Your task to perform on an android device: Open the Play Movies app and select the watchlist tab. Image 0: 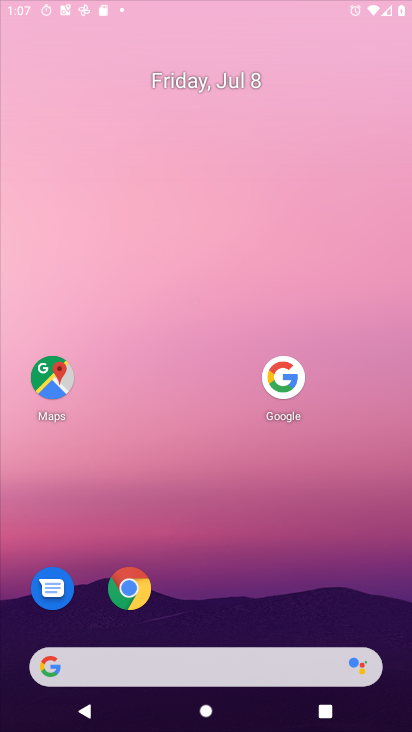
Step 0: press home button
Your task to perform on an android device: Open the Play Movies app and select the watchlist tab. Image 1: 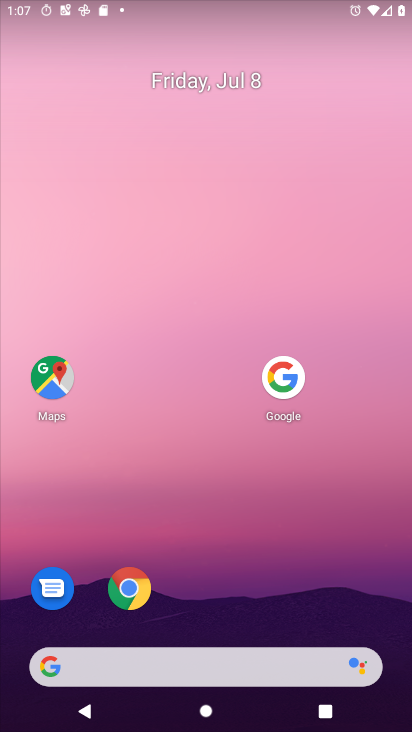
Step 1: drag from (166, 667) to (317, 39)
Your task to perform on an android device: Open the Play Movies app and select the watchlist tab. Image 2: 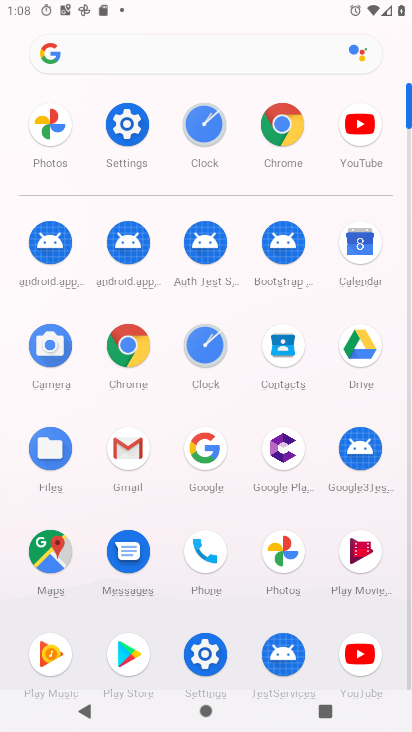
Step 2: click (357, 551)
Your task to perform on an android device: Open the Play Movies app and select the watchlist tab. Image 3: 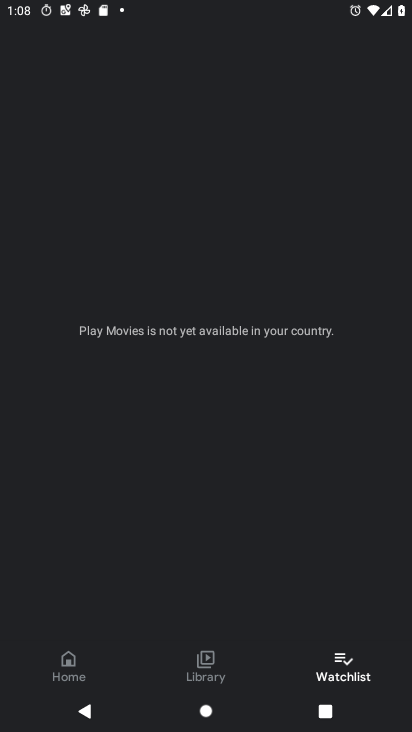
Step 3: task complete